Your task to perform on an android device: Do I have any events today? Image 0: 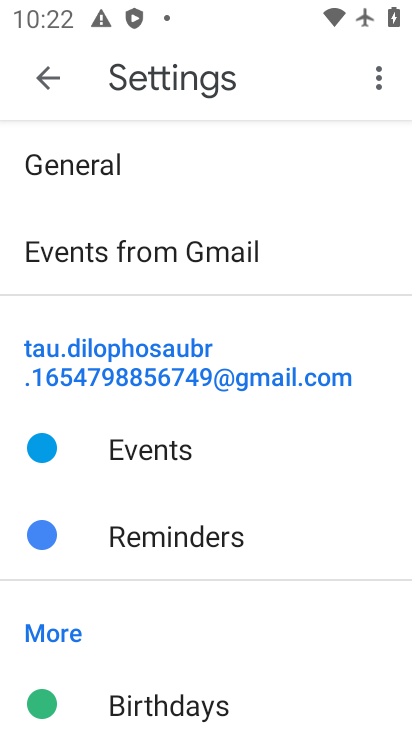
Step 0: press home button
Your task to perform on an android device: Do I have any events today? Image 1: 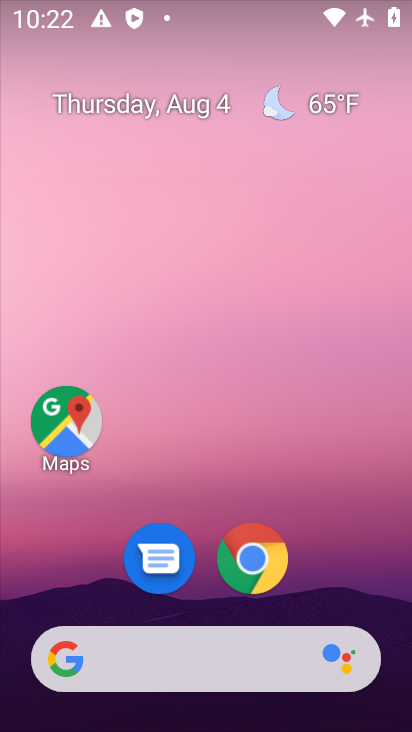
Step 1: drag from (330, 552) to (297, 180)
Your task to perform on an android device: Do I have any events today? Image 2: 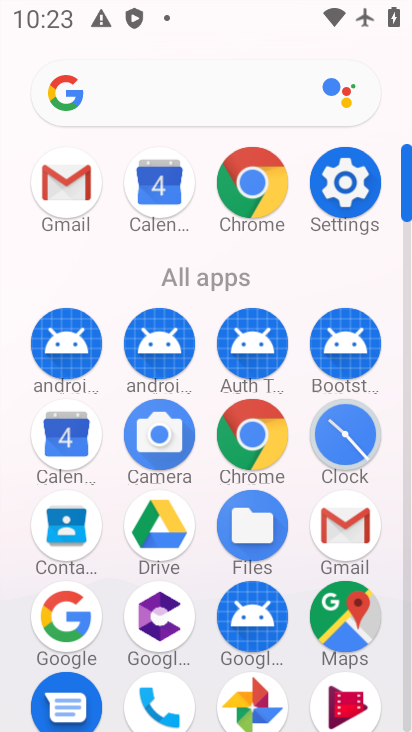
Step 2: click (63, 433)
Your task to perform on an android device: Do I have any events today? Image 3: 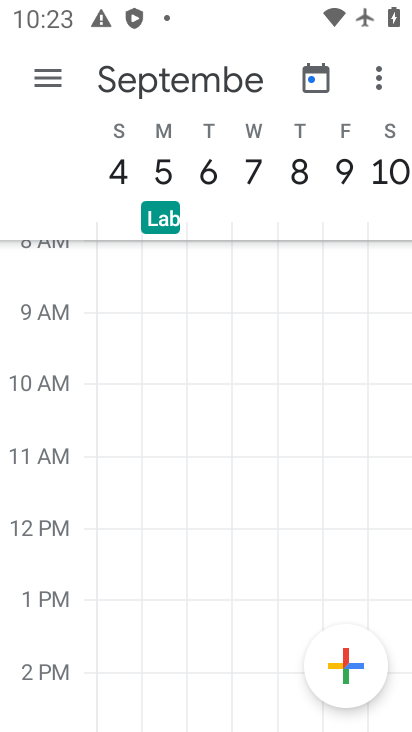
Step 3: click (144, 66)
Your task to perform on an android device: Do I have any events today? Image 4: 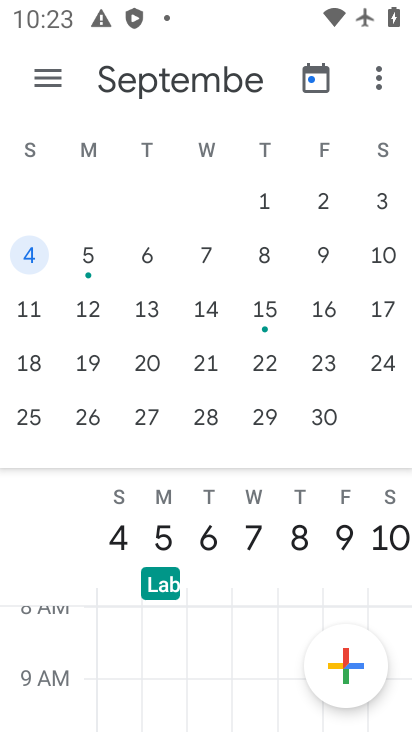
Step 4: click (27, 332)
Your task to perform on an android device: Do I have any events today? Image 5: 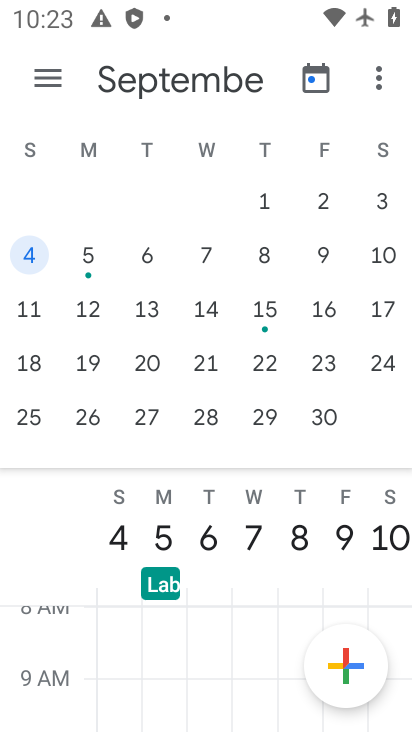
Step 5: drag from (60, 338) to (385, 304)
Your task to perform on an android device: Do I have any events today? Image 6: 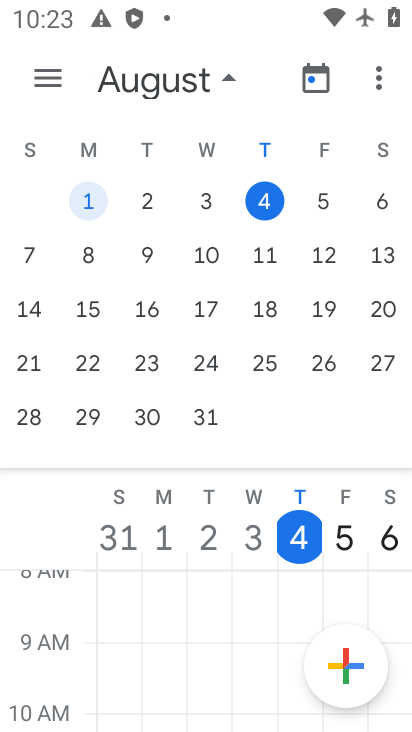
Step 6: click (273, 201)
Your task to perform on an android device: Do I have any events today? Image 7: 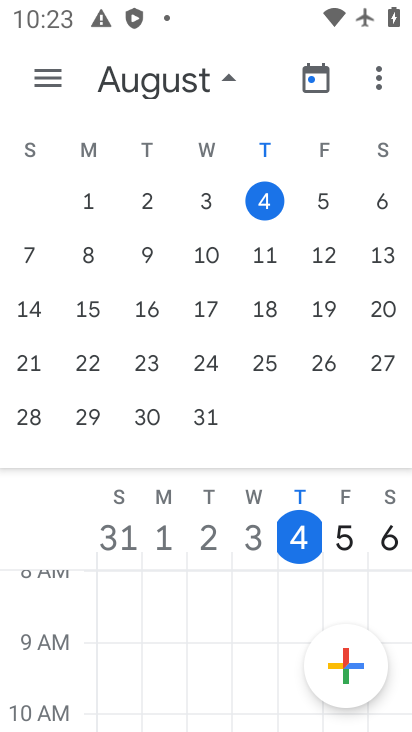
Step 7: click (293, 540)
Your task to perform on an android device: Do I have any events today? Image 8: 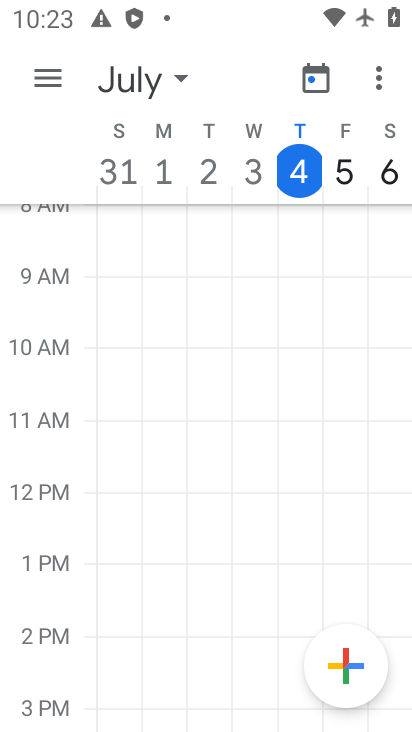
Step 8: task complete